Your task to perform on an android device: Add "lenovo thinkpad" to the cart on costco, then select checkout. Image 0: 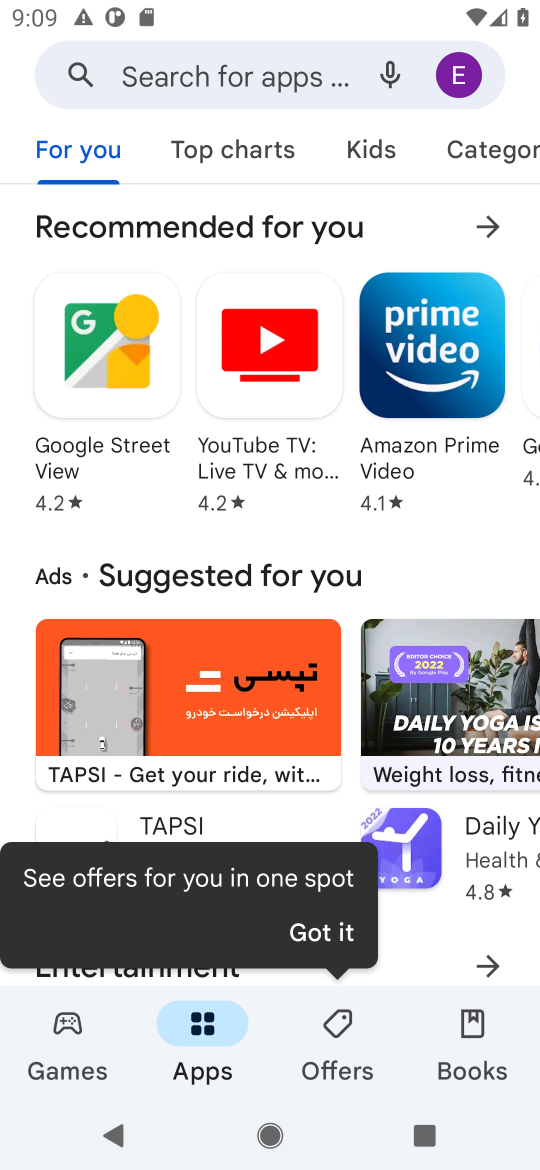
Step 0: press home button
Your task to perform on an android device: Add "lenovo thinkpad" to the cart on costco, then select checkout. Image 1: 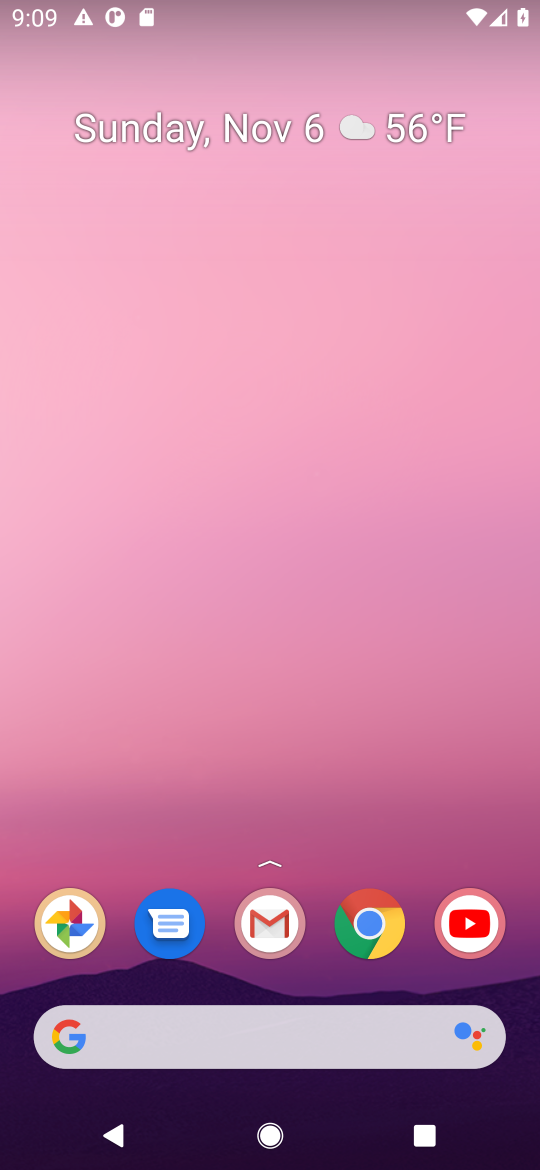
Step 1: click (379, 943)
Your task to perform on an android device: Add "lenovo thinkpad" to the cart on costco, then select checkout. Image 2: 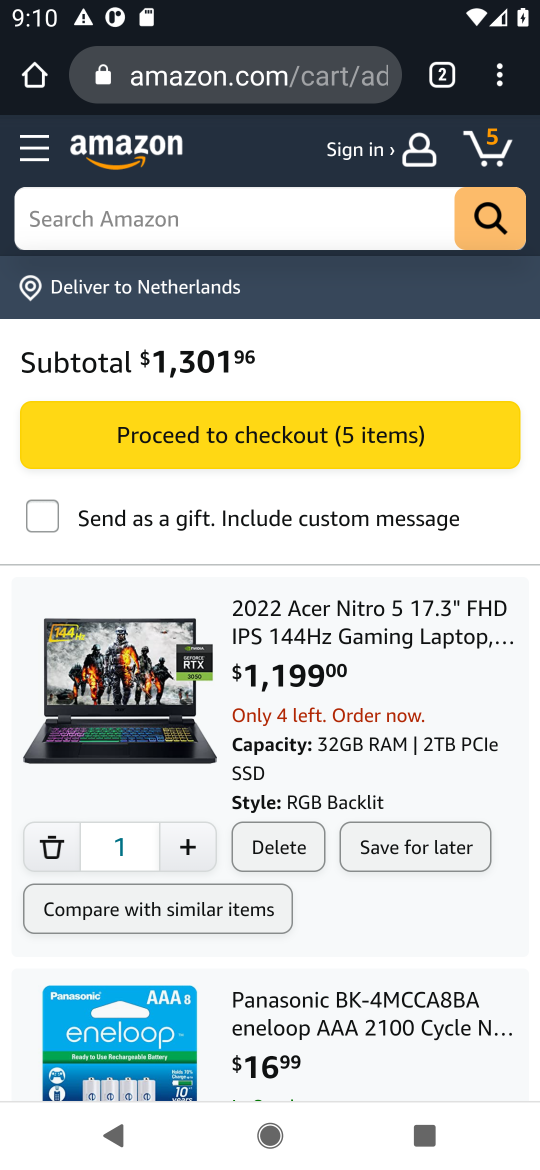
Step 2: click (218, 92)
Your task to perform on an android device: Add "lenovo thinkpad" to the cart on costco, then select checkout. Image 3: 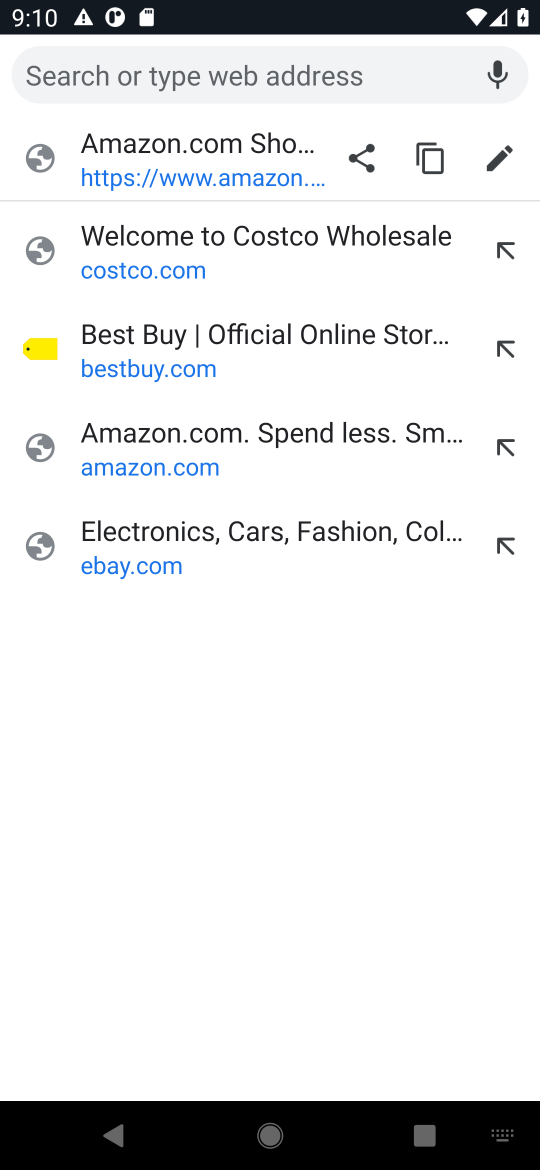
Step 3: click (136, 271)
Your task to perform on an android device: Add "lenovo thinkpad" to the cart on costco, then select checkout. Image 4: 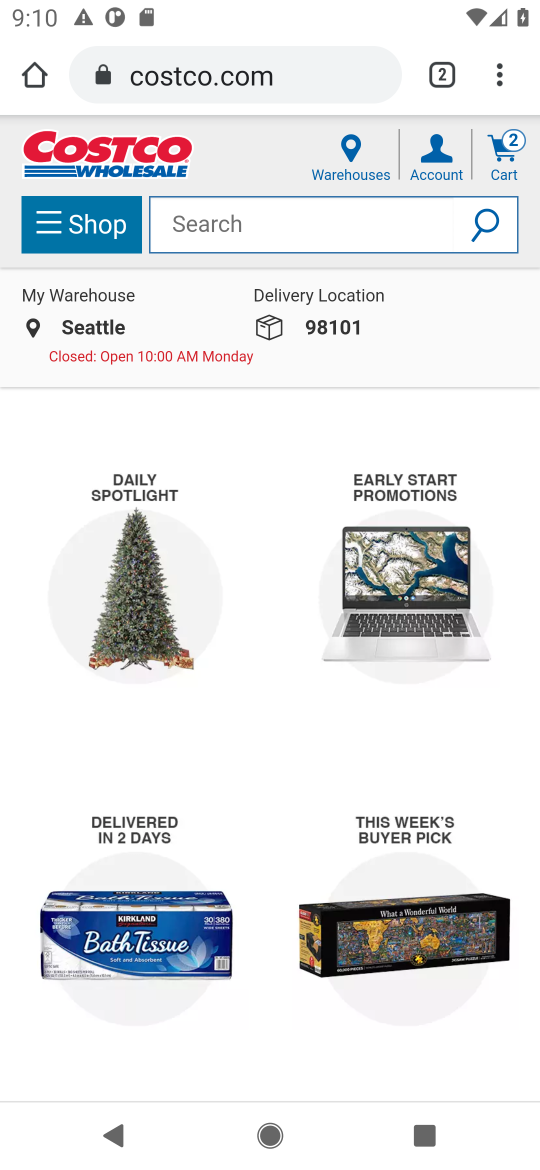
Step 4: click (327, 223)
Your task to perform on an android device: Add "lenovo thinkpad" to the cart on costco, then select checkout. Image 5: 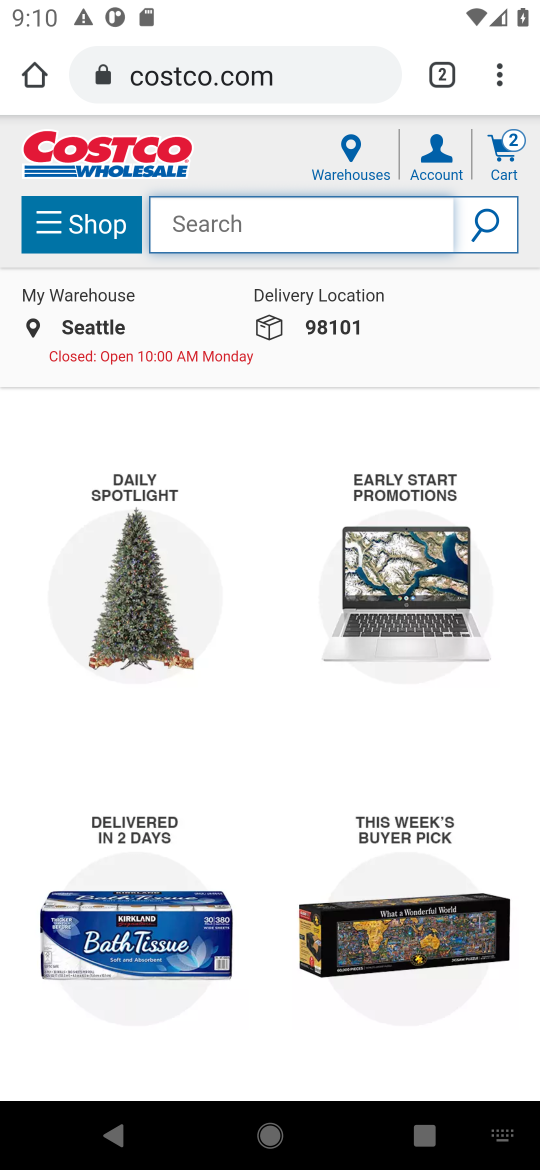
Step 5: type "lenovo thinkpad"
Your task to perform on an android device: Add "lenovo thinkpad" to the cart on costco, then select checkout. Image 6: 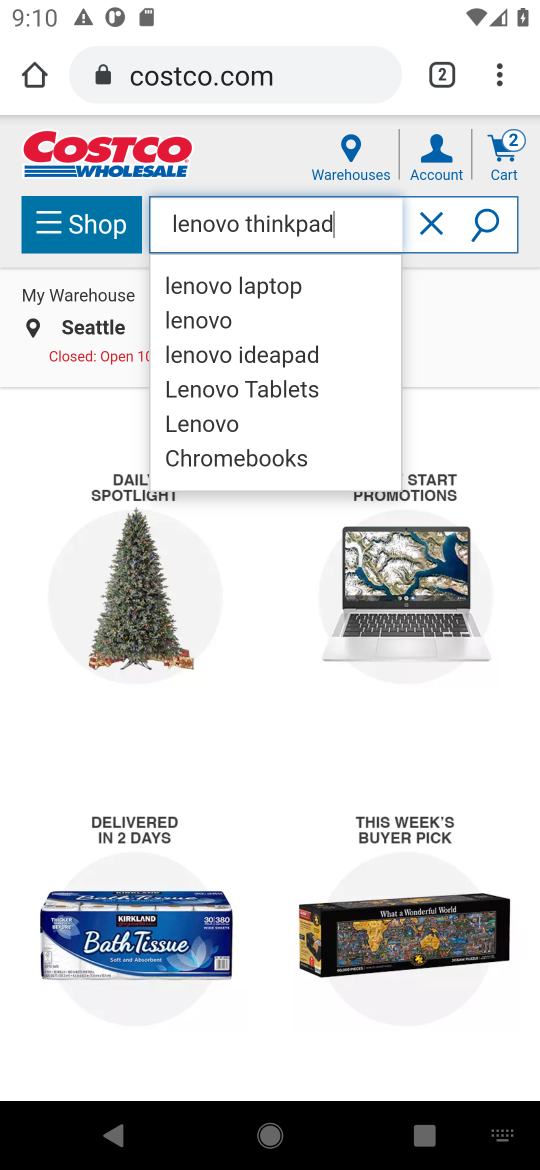
Step 6: click (480, 214)
Your task to perform on an android device: Add "lenovo thinkpad" to the cart on costco, then select checkout. Image 7: 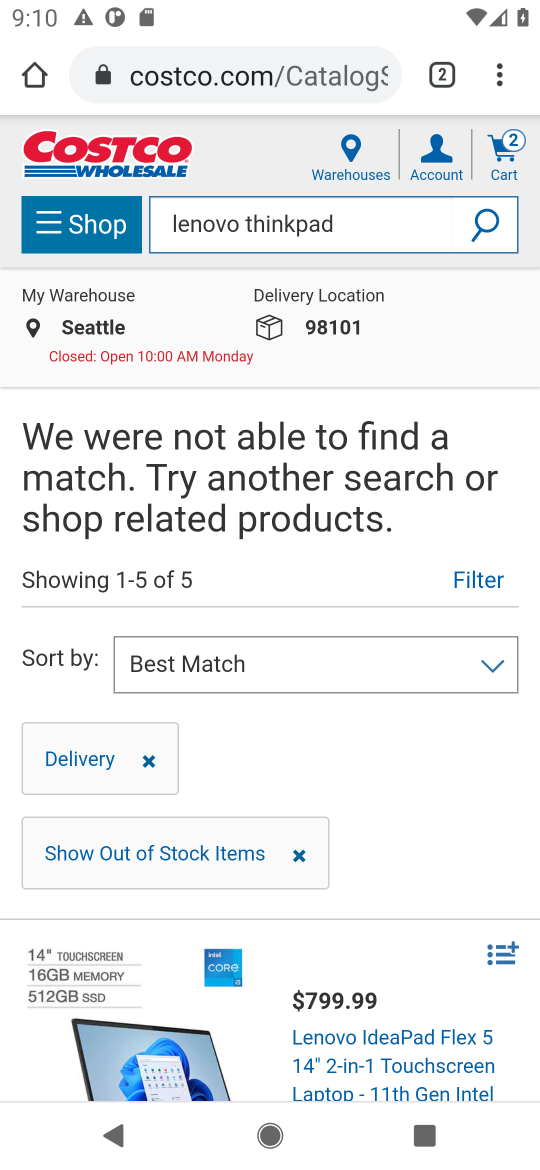
Step 7: task complete